Your task to perform on an android device: Open Chrome and go to settings Image 0: 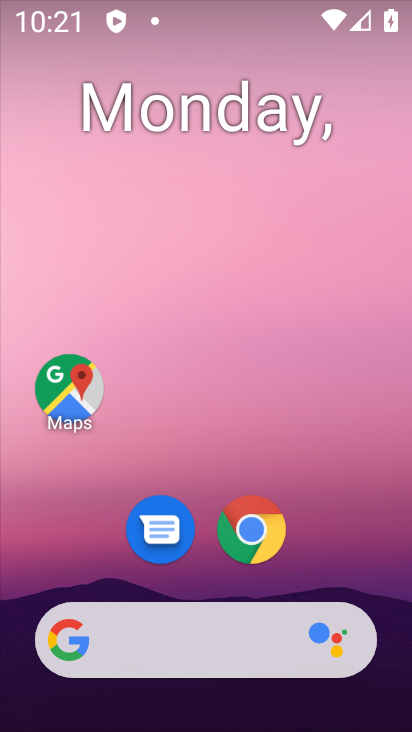
Step 0: click (257, 525)
Your task to perform on an android device: Open Chrome and go to settings Image 1: 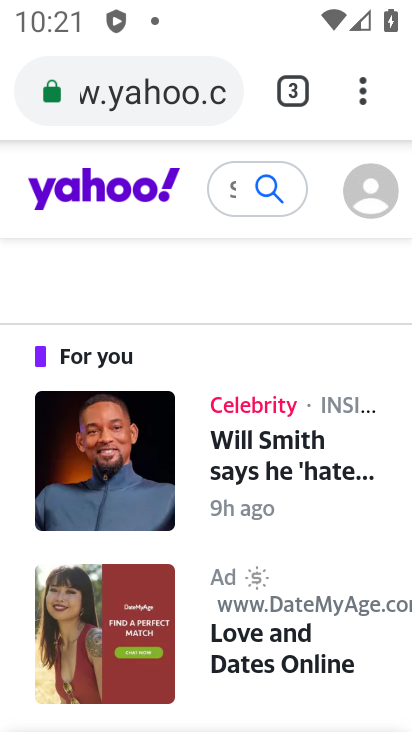
Step 1: click (356, 86)
Your task to perform on an android device: Open Chrome and go to settings Image 2: 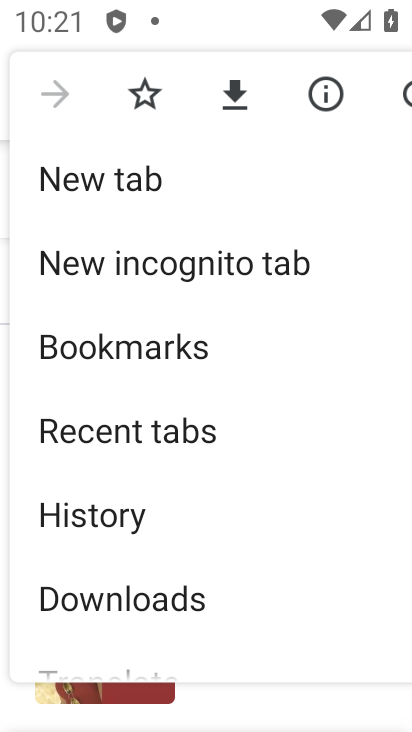
Step 2: drag from (219, 490) to (133, 164)
Your task to perform on an android device: Open Chrome and go to settings Image 3: 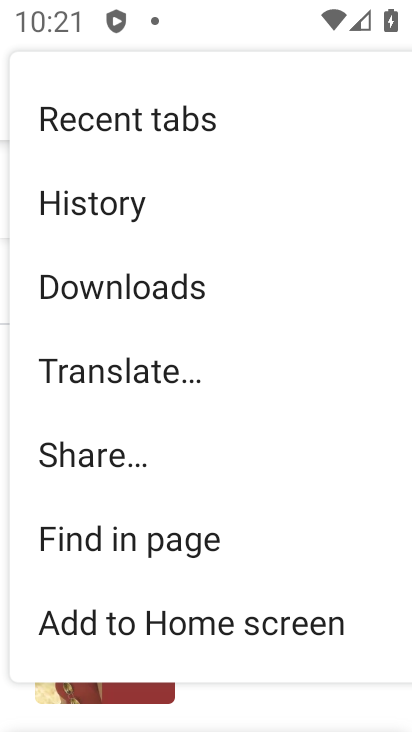
Step 3: drag from (278, 470) to (270, 131)
Your task to perform on an android device: Open Chrome and go to settings Image 4: 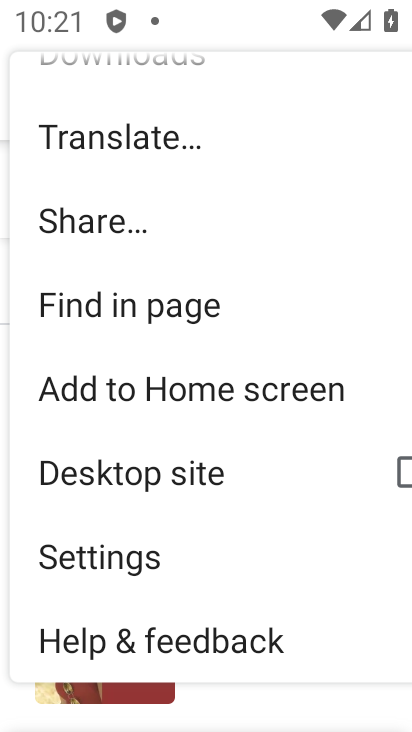
Step 4: click (100, 547)
Your task to perform on an android device: Open Chrome and go to settings Image 5: 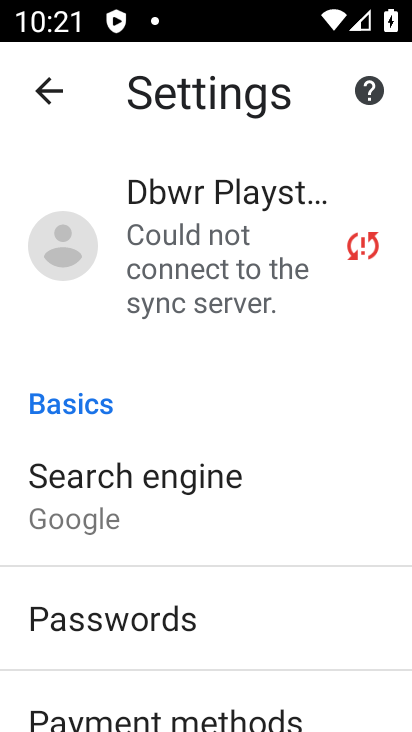
Step 5: task complete